Your task to perform on an android device: Do I have any events this weekend? Image 0: 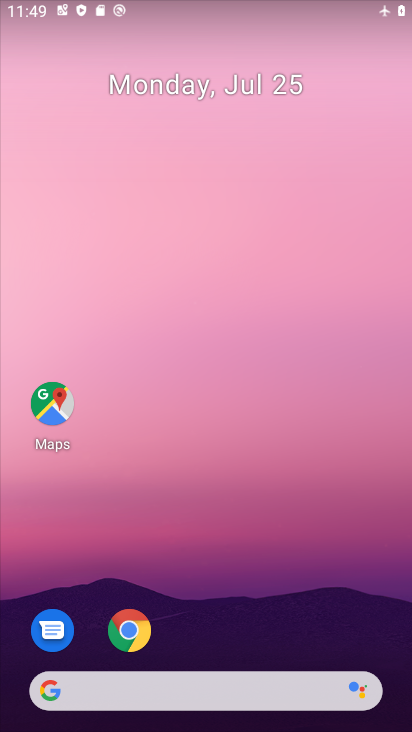
Step 0: press home button
Your task to perform on an android device: Do I have any events this weekend? Image 1: 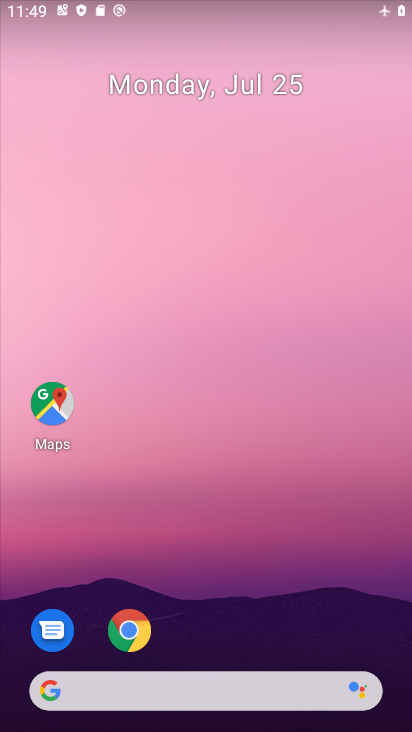
Step 1: drag from (340, 586) to (364, 87)
Your task to perform on an android device: Do I have any events this weekend? Image 2: 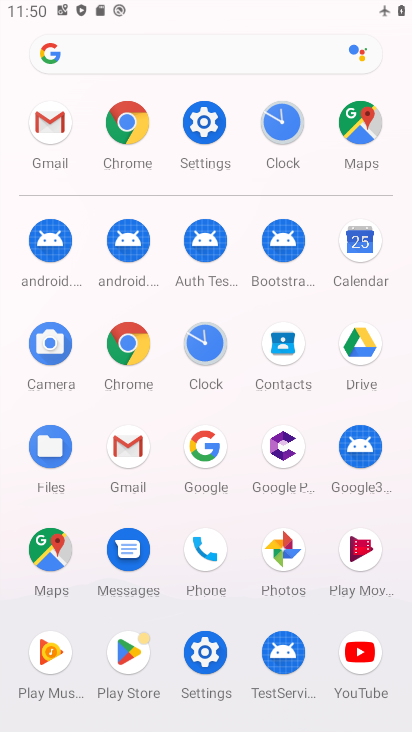
Step 2: click (356, 250)
Your task to perform on an android device: Do I have any events this weekend? Image 3: 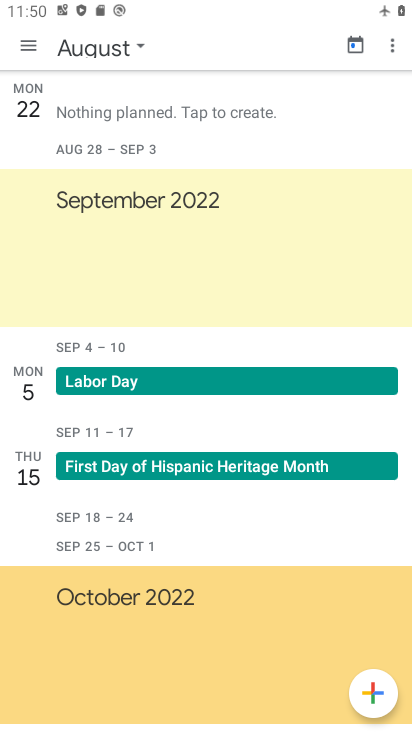
Step 3: drag from (241, 166) to (237, 300)
Your task to perform on an android device: Do I have any events this weekend? Image 4: 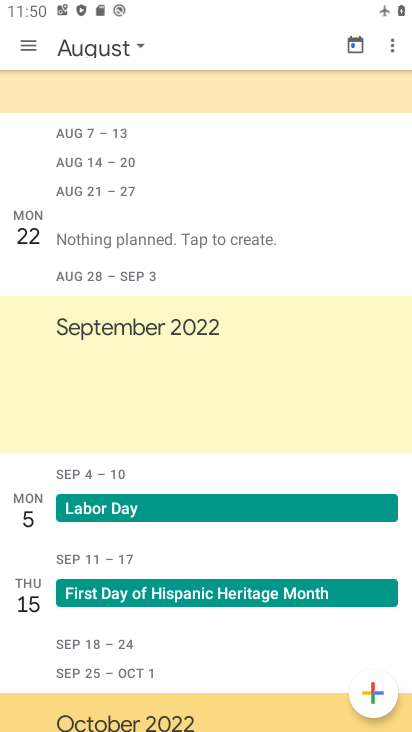
Step 4: drag from (223, 156) to (236, 348)
Your task to perform on an android device: Do I have any events this weekend? Image 5: 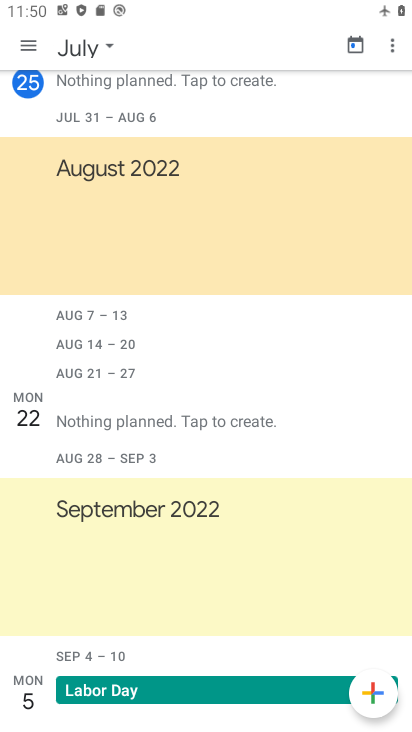
Step 5: click (108, 45)
Your task to perform on an android device: Do I have any events this weekend? Image 6: 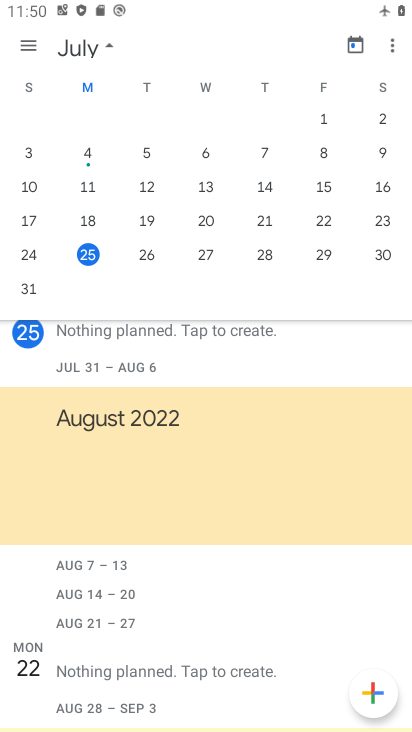
Step 6: click (150, 254)
Your task to perform on an android device: Do I have any events this weekend? Image 7: 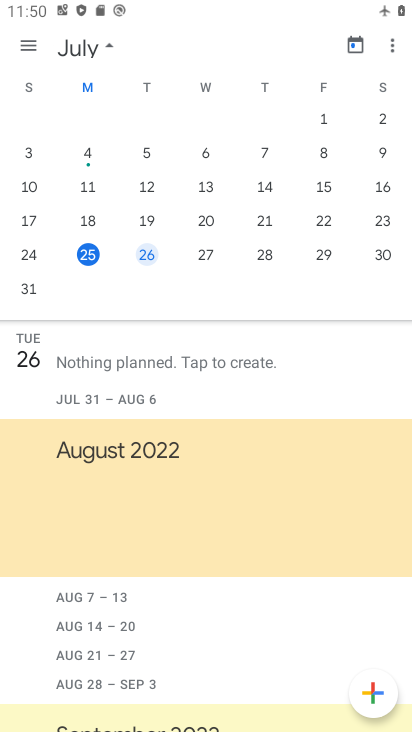
Step 7: task complete